Your task to perform on an android device: Open Chrome and go to settings Image 0: 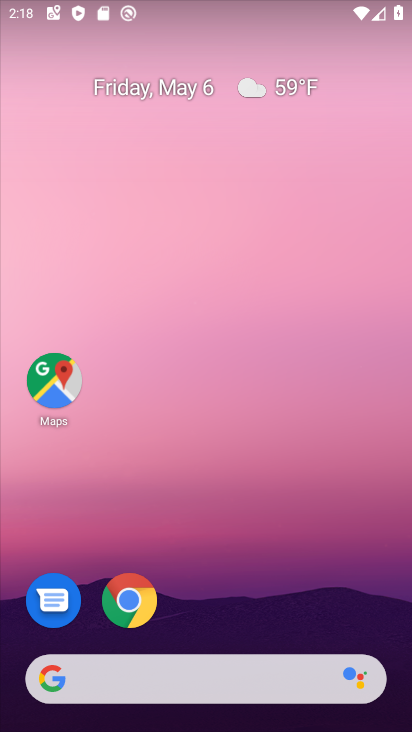
Step 0: press home button
Your task to perform on an android device: Open Chrome and go to settings Image 1: 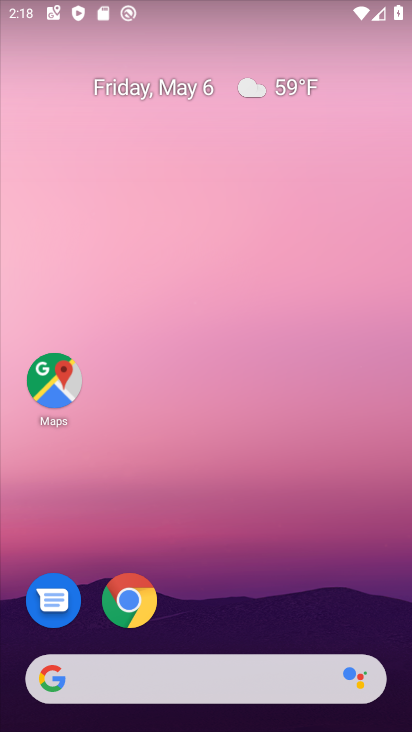
Step 1: click (123, 598)
Your task to perform on an android device: Open Chrome and go to settings Image 2: 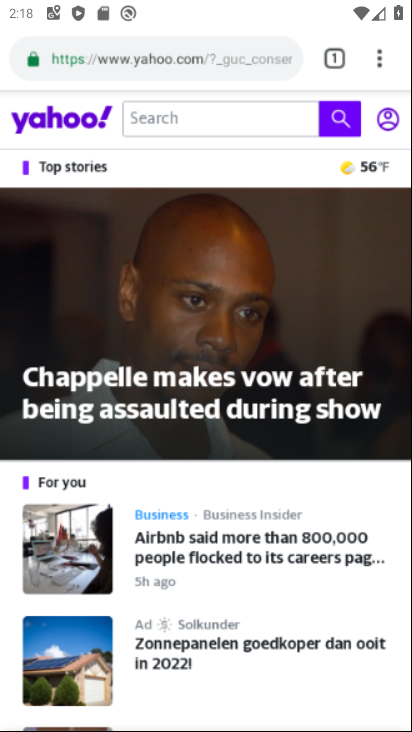
Step 2: click (372, 56)
Your task to perform on an android device: Open Chrome and go to settings Image 3: 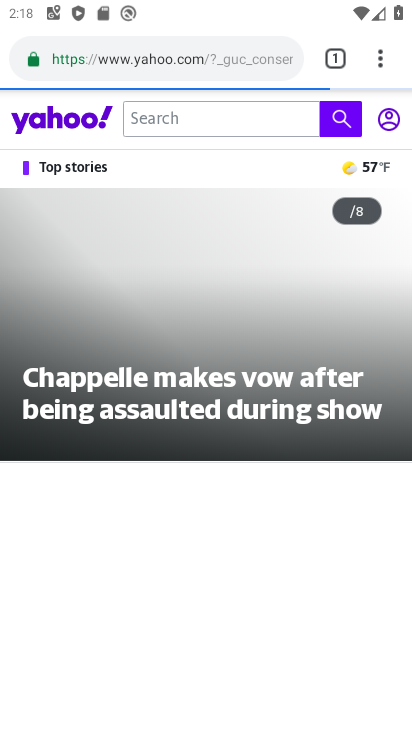
Step 3: click (373, 55)
Your task to perform on an android device: Open Chrome and go to settings Image 4: 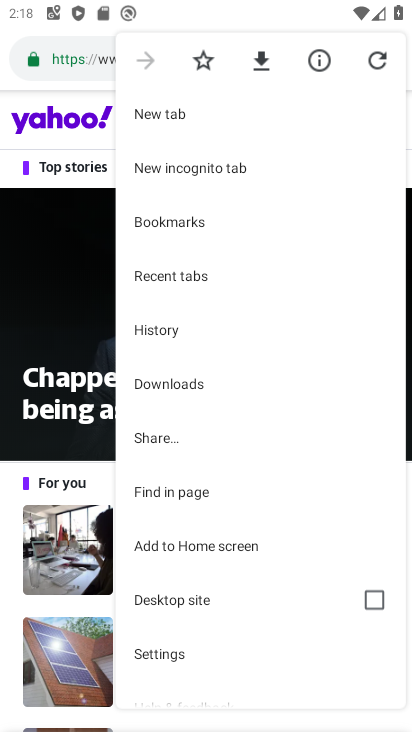
Step 4: click (180, 655)
Your task to perform on an android device: Open Chrome and go to settings Image 5: 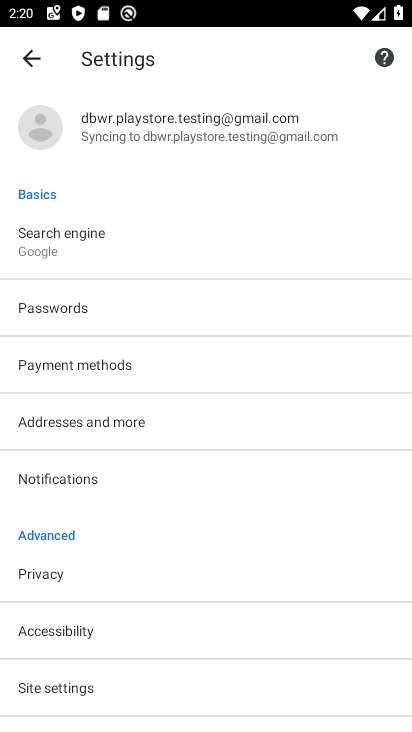
Step 5: task complete